Your task to perform on an android device: toggle data saver in the chrome app Image 0: 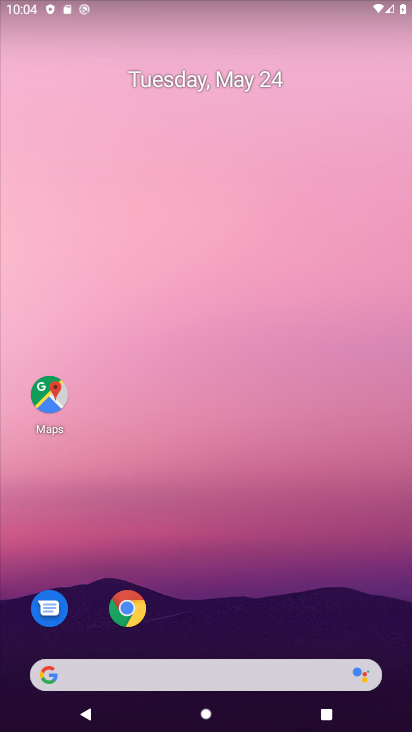
Step 0: click (124, 601)
Your task to perform on an android device: toggle data saver in the chrome app Image 1: 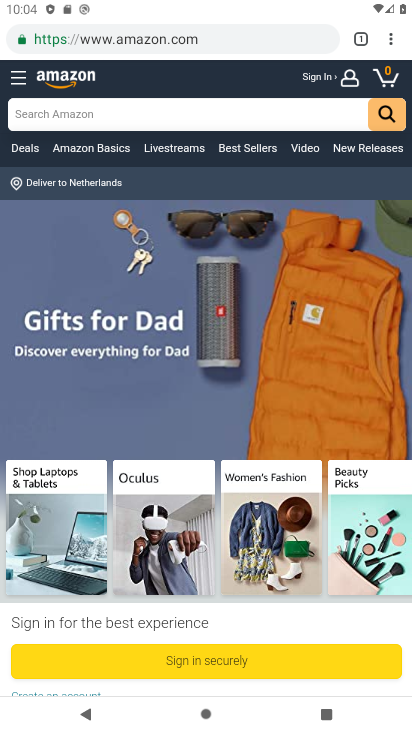
Step 1: click (388, 45)
Your task to perform on an android device: toggle data saver in the chrome app Image 2: 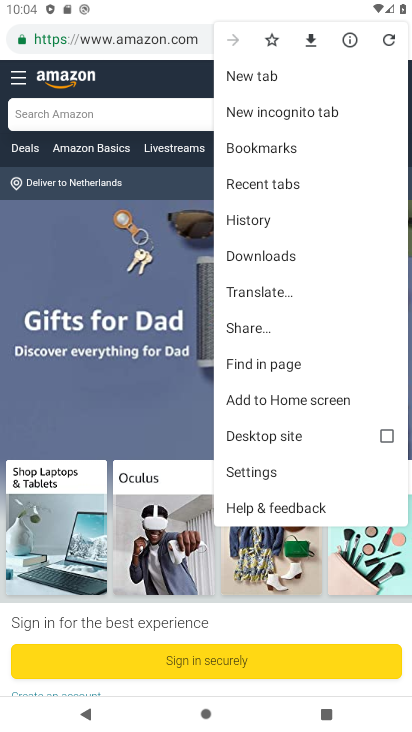
Step 2: click (254, 474)
Your task to perform on an android device: toggle data saver in the chrome app Image 3: 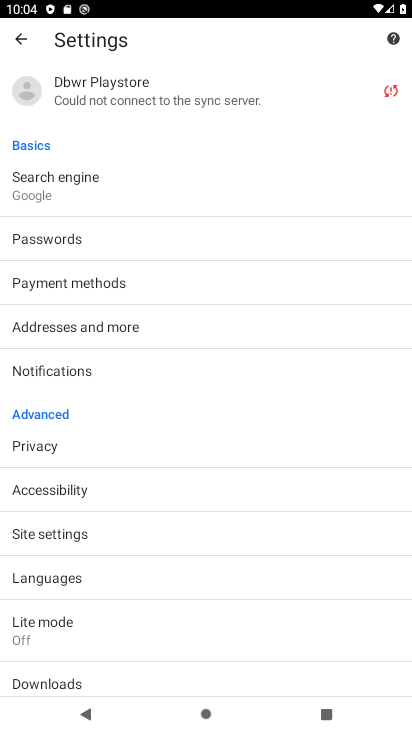
Step 3: click (50, 618)
Your task to perform on an android device: toggle data saver in the chrome app Image 4: 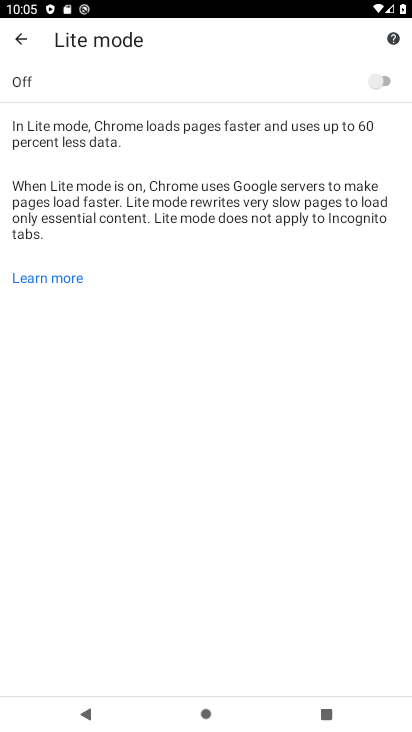
Step 4: click (386, 77)
Your task to perform on an android device: toggle data saver in the chrome app Image 5: 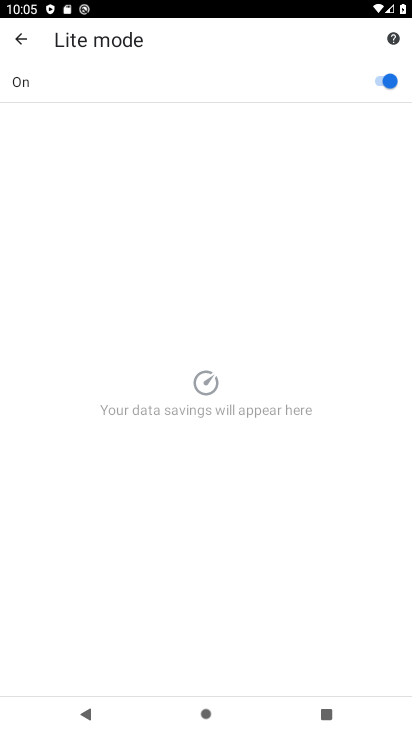
Step 5: task complete